Your task to perform on an android device: turn off airplane mode Image 0: 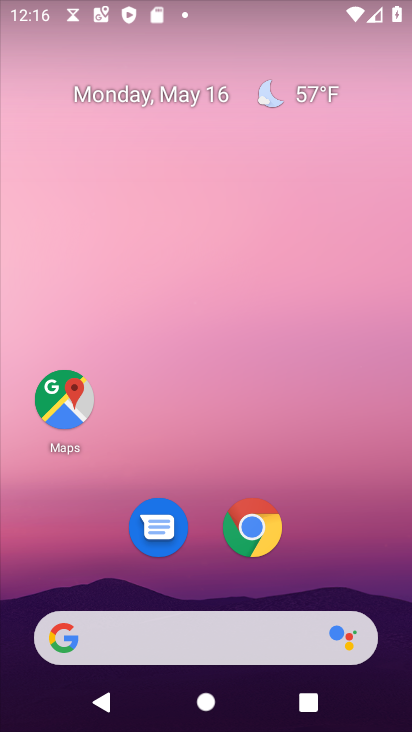
Step 0: drag from (228, 549) to (280, 110)
Your task to perform on an android device: turn off airplane mode Image 1: 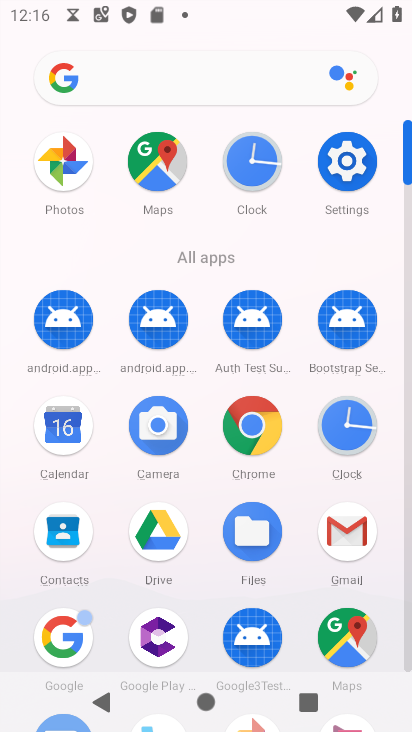
Step 1: click (356, 171)
Your task to perform on an android device: turn off airplane mode Image 2: 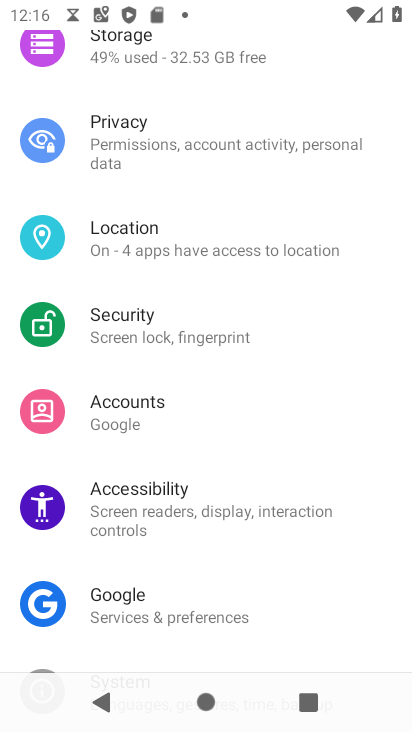
Step 2: drag from (205, 169) to (204, 464)
Your task to perform on an android device: turn off airplane mode Image 3: 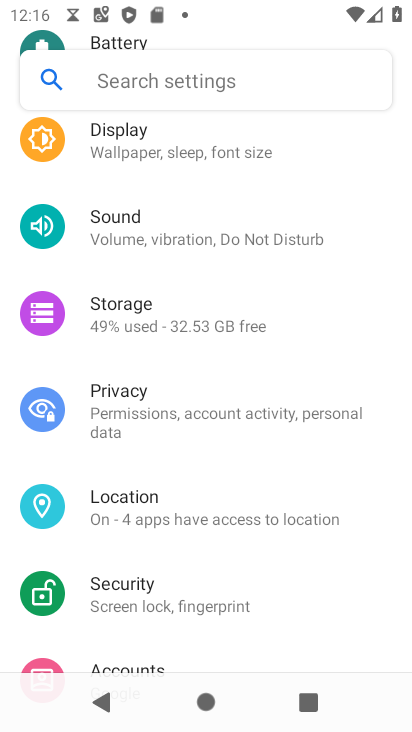
Step 3: drag from (182, 185) to (159, 561)
Your task to perform on an android device: turn off airplane mode Image 4: 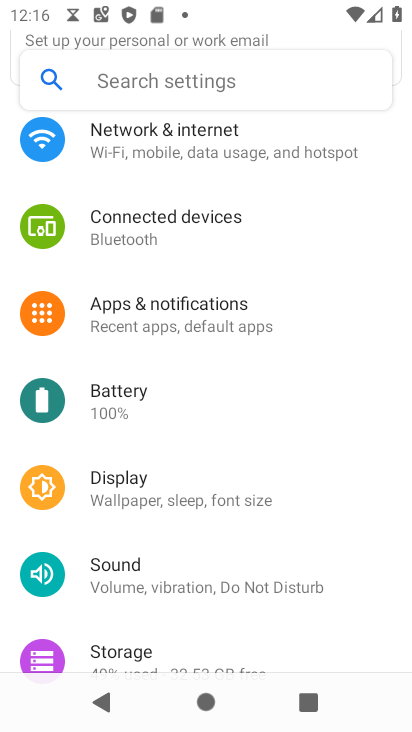
Step 4: drag from (214, 214) to (210, 532)
Your task to perform on an android device: turn off airplane mode Image 5: 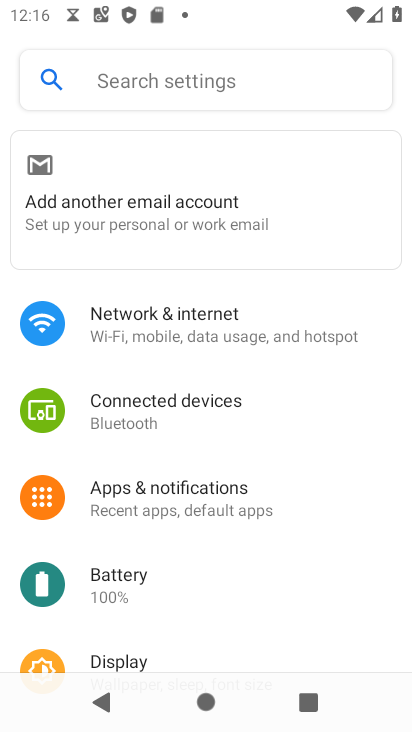
Step 5: click (197, 317)
Your task to perform on an android device: turn off airplane mode Image 6: 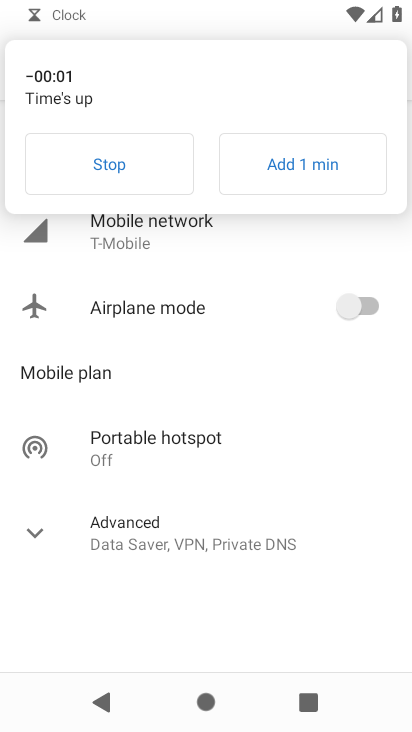
Step 6: click (122, 175)
Your task to perform on an android device: turn off airplane mode Image 7: 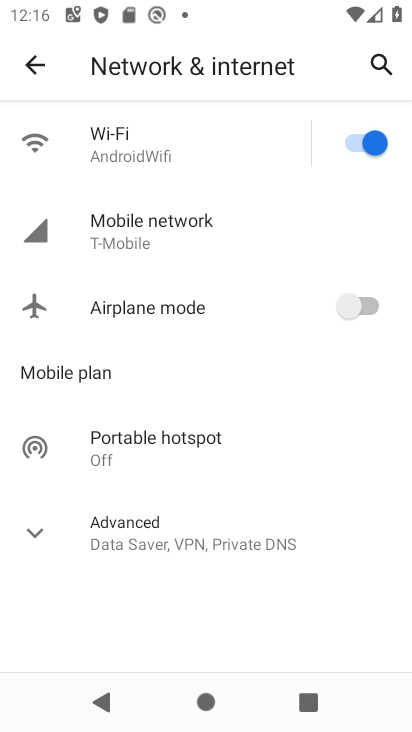
Step 7: task complete